Your task to perform on an android device: Is it going to rain today? Image 0: 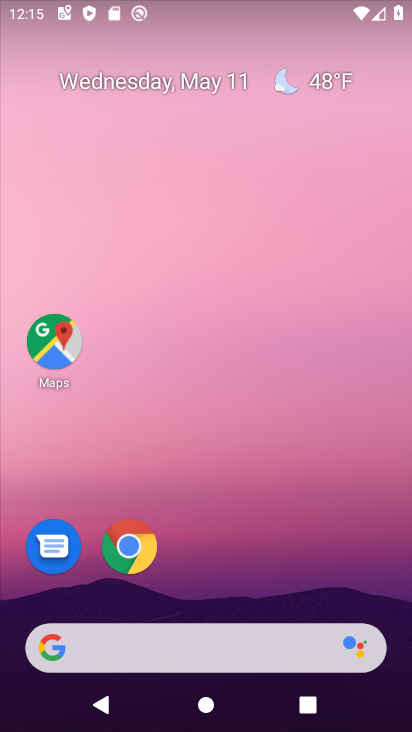
Step 0: click (309, 85)
Your task to perform on an android device: Is it going to rain today? Image 1: 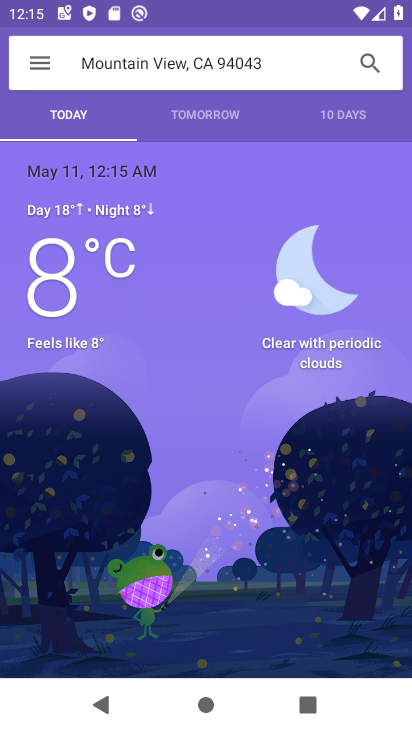
Step 1: task complete